Your task to perform on an android device: Check the weather Image 0: 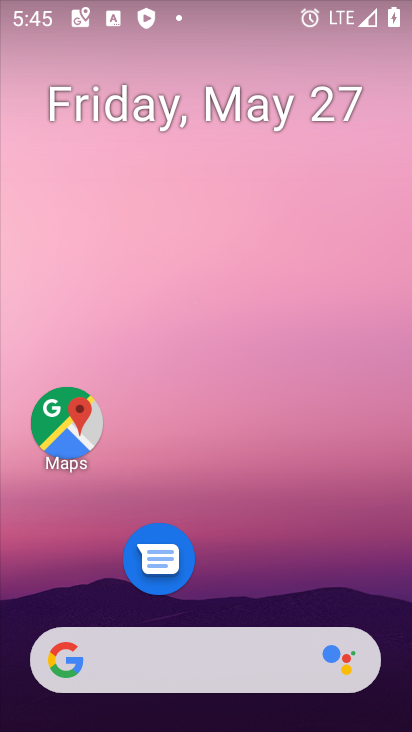
Step 0: drag from (280, 640) to (390, 0)
Your task to perform on an android device: Check the weather Image 1: 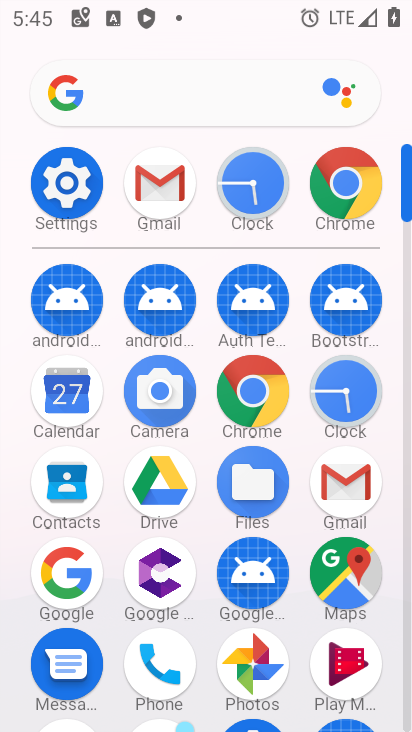
Step 1: click (244, 409)
Your task to perform on an android device: Check the weather Image 2: 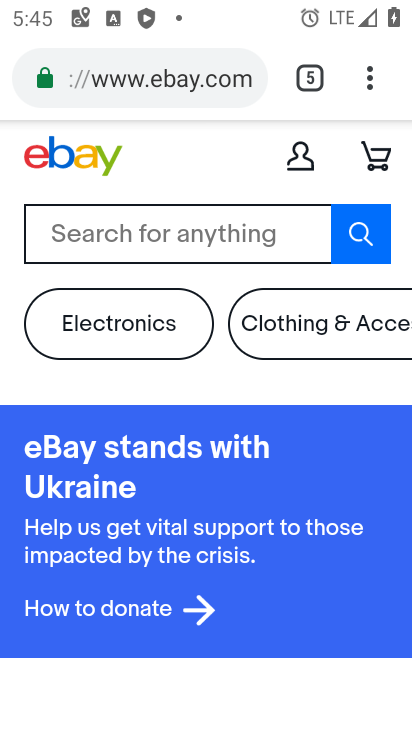
Step 2: click (206, 91)
Your task to perform on an android device: Check the weather Image 3: 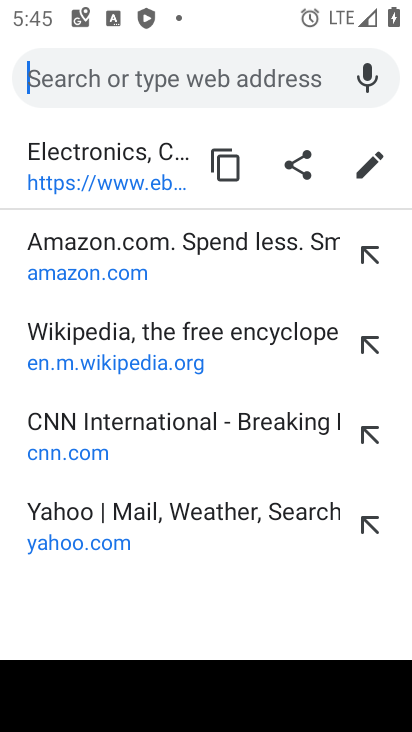
Step 3: press back button
Your task to perform on an android device: Check the weather Image 4: 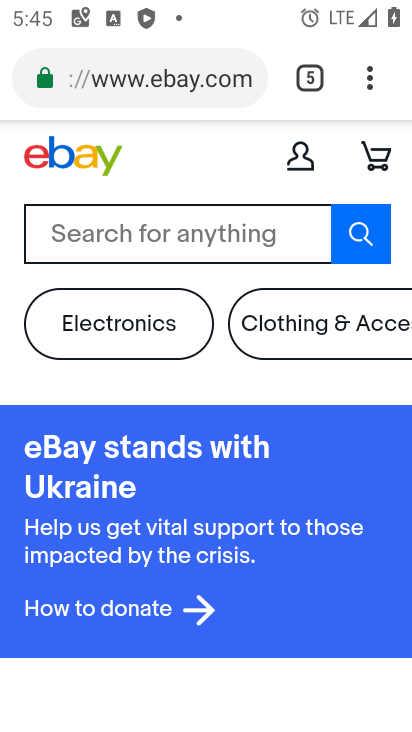
Step 4: press home button
Your task to perform on an android device: Check the weather Image 5: 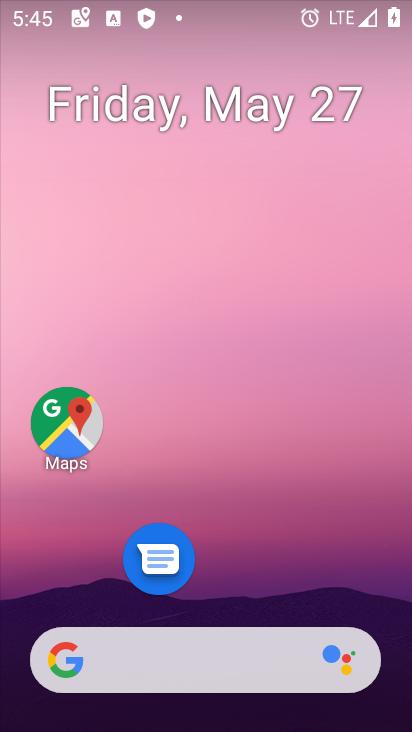
Step 5: drag from (63, 242) to (406, 225)
Your task to perform on an android device: Check the weather Image 6: 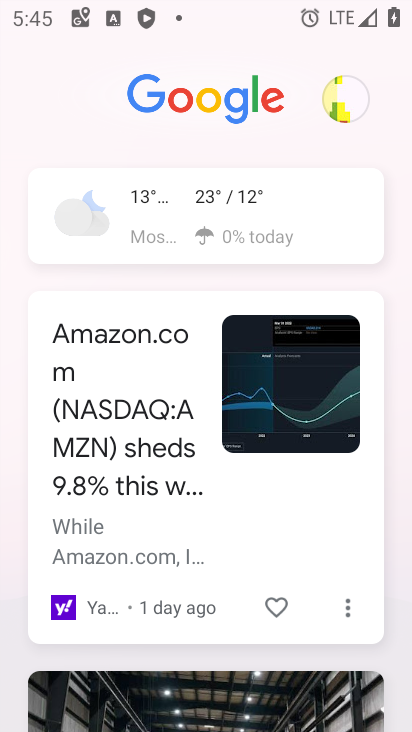
Step 6: click (213, 212)
Your task to perform on an android device: Check the weather Image 7: 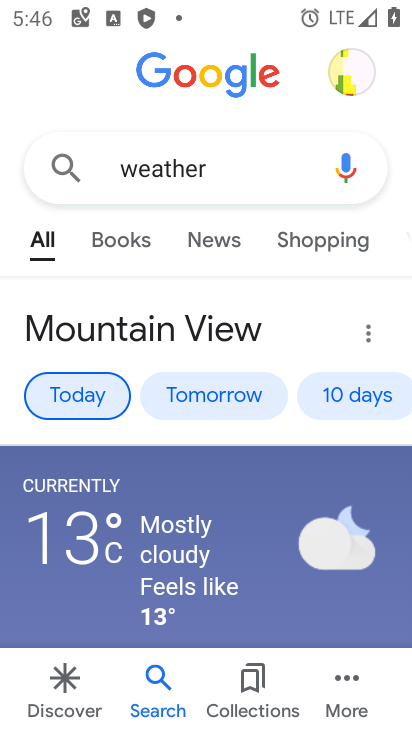
Step 7: task complete